Your task to perform on an android device: Go to accessibility settings Image 0: 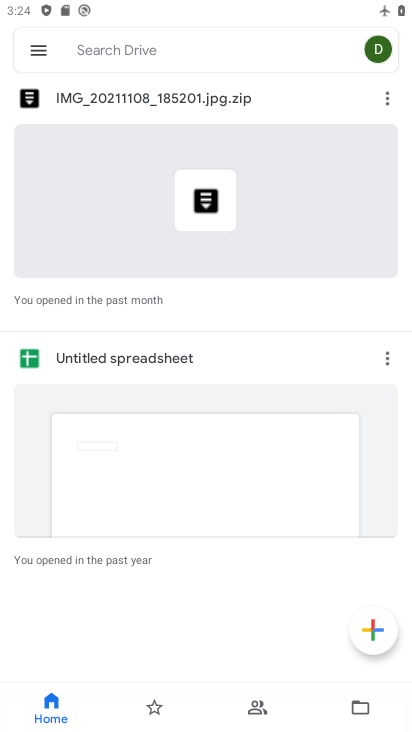
Step 0: press home button
Your task to perform on an android device: Go to accessibility settings Image 1: 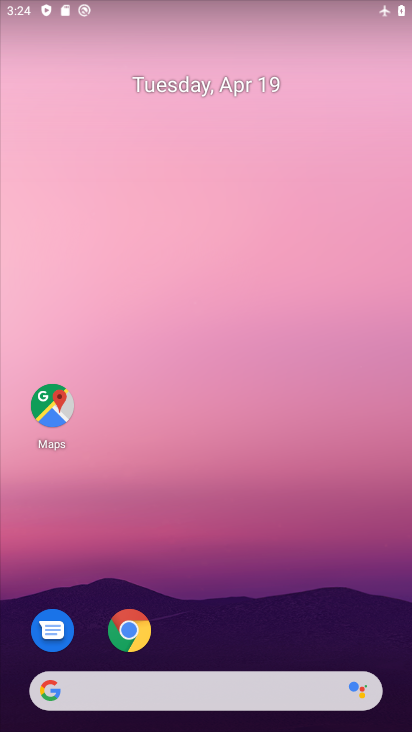
Step 1: drag from (235, 457) to (247, 30)
Your task to perform on an android device: Go to accessibility settings Image 2: 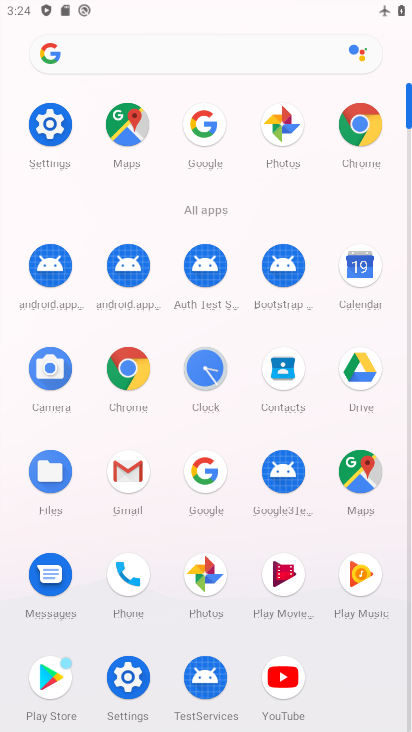
Step 2: click (34, 117)
Your task to perform on an android device: Go to accessibility settings Image 3: 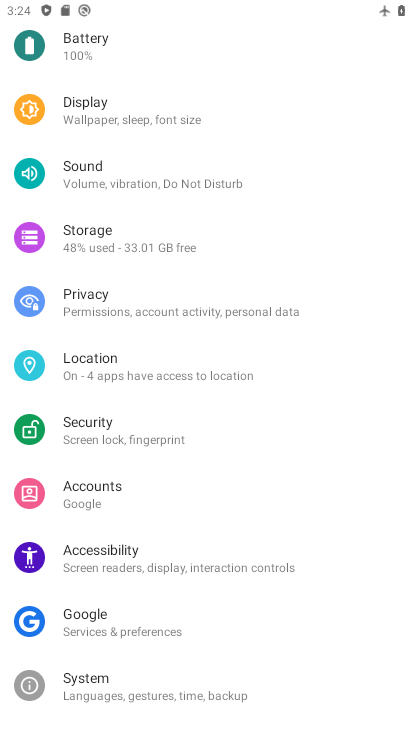
Step 3: click (99, 556)
Your task to perform on an android device: Go to accessibility settings Image 4: 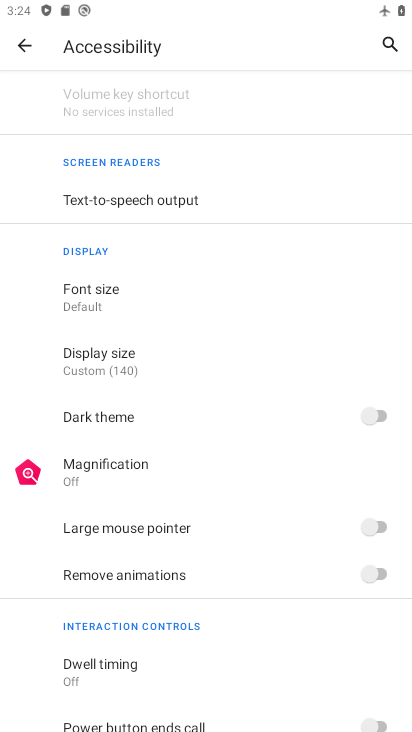
Step 4: task complete